Your task to perform on an android device: turn pop-ups off in chrome Image 0: 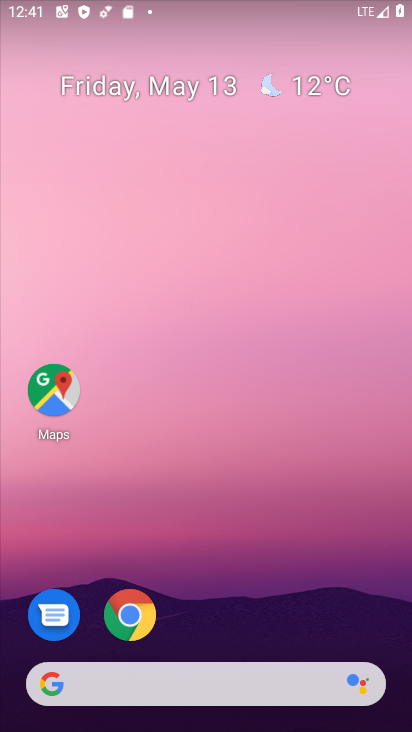
Step 0: click (153, 609)
Your task to perform on an android device: turn pop-ups off in chrome Image 1: 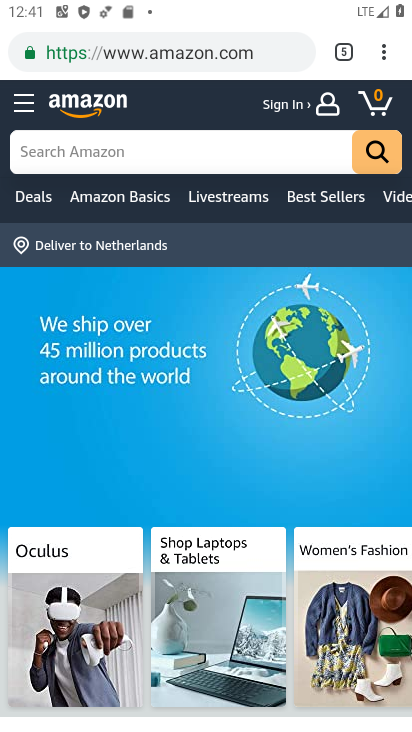
Step 1: click (391, 52)
Your task to perform on an android device: turn pop-ups off in chrome Image 2: 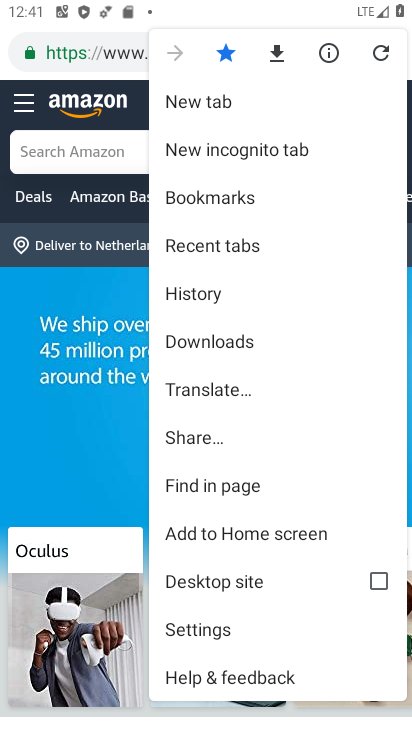
Step 2: drag from (286, 622) to (295, 439)
Your task to perform on an android device: turn pop-ups off in chrome Image 3: 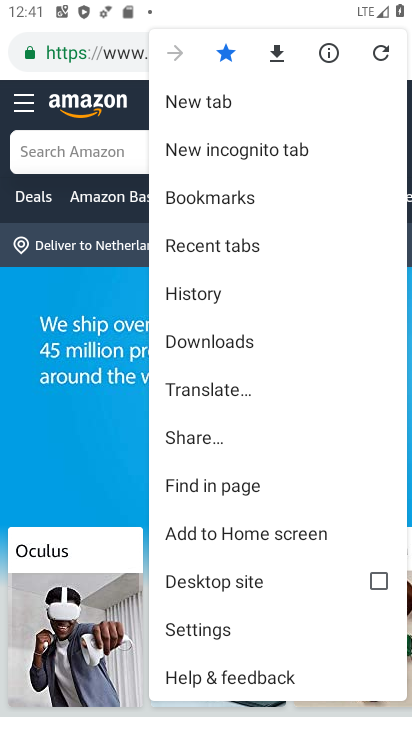
Step 3: click (241, 625)
Your task to perform on an android device: turn pop-ups off in chrome Image 4: 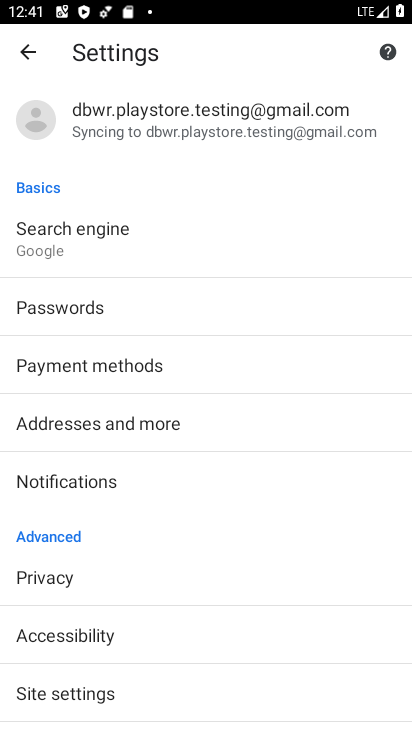
Step 4: drag from (226, 599) to (235, 345)
Your task to perform on an android device: turn pop-ups off in chrome Image 5: 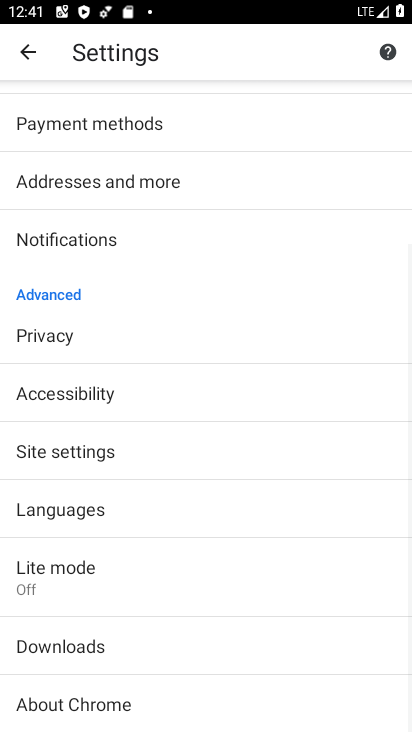
Step 5: click (165, 453)
Your task to perform on an android device: turn pop-ups off in chrome Image 6: 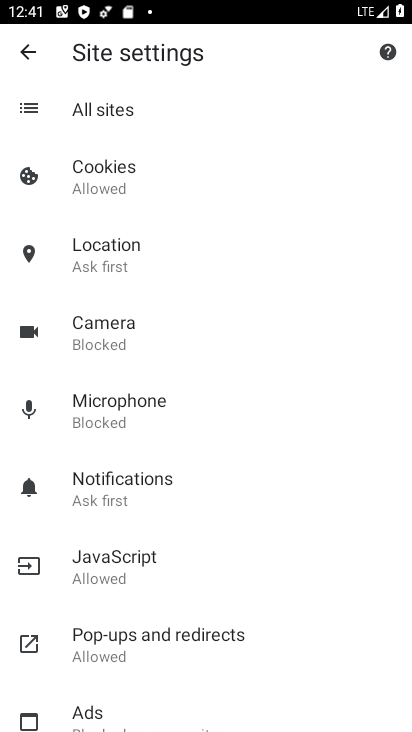
Step 6: click (186, 647)
Your task to perform on an android device: turn pop-ups off in chrome Image 7: 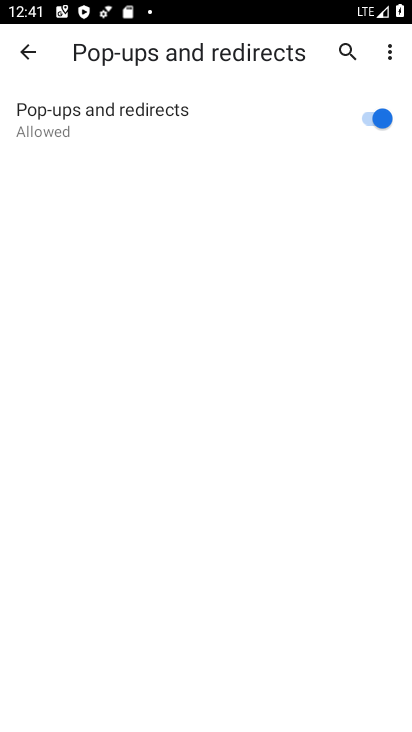
Step 7: click (367, 114)
Your task to perform on an android device: turn pop-ups off in chrome Image 8: 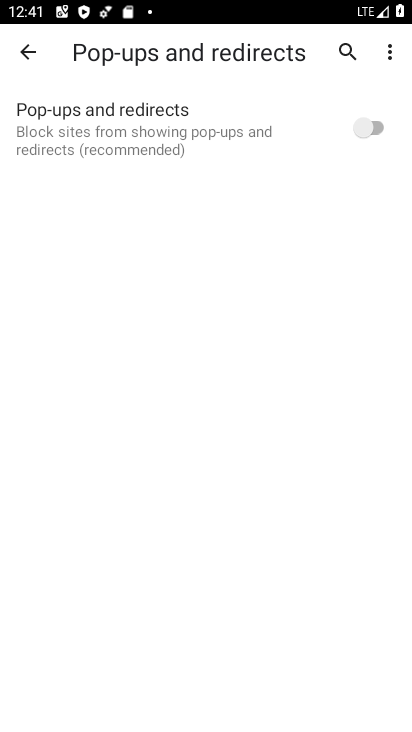
Step 8: task complete